Your task to perform on an android device: change your default location settings in chrome Image 0: 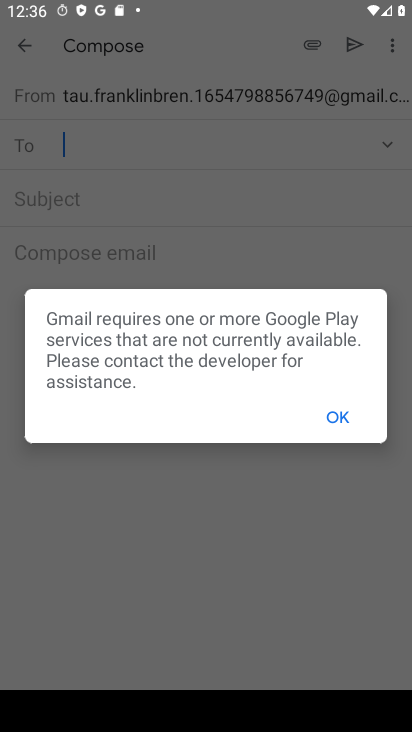
Step 0: click (341, 415)
Your task to perform on an android device: change your default location settings in chrome Image 1: 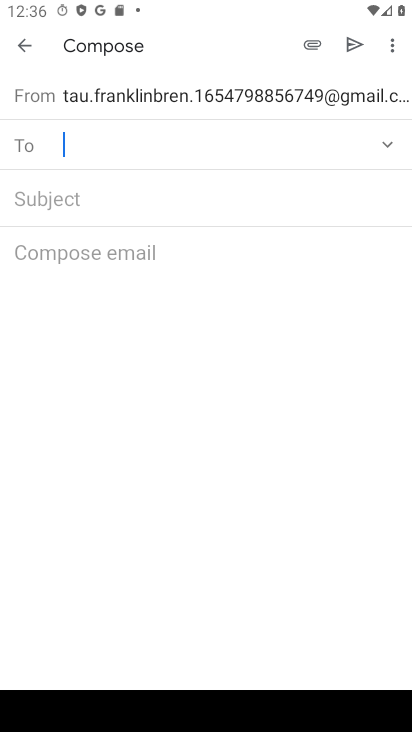
Step 1: drag from (241, 564) to (330, 316)
Your task to perform on an android device: change your default location settings in chrome Image 2: 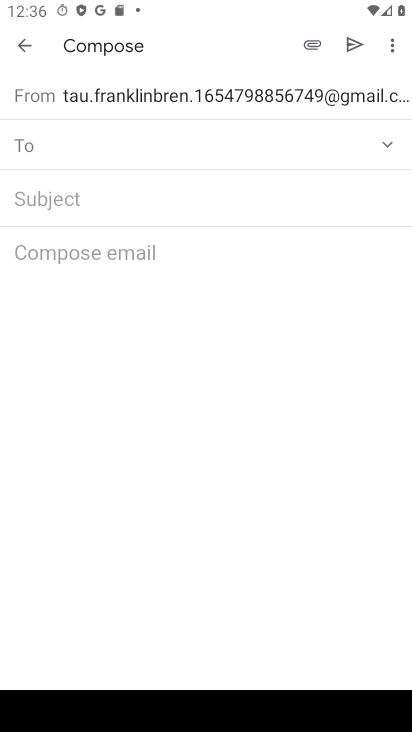
Step 2: drag from (251, 517) to (297, 184)
Your task to perform on an android device: change your default location settings in chrome Image 3: 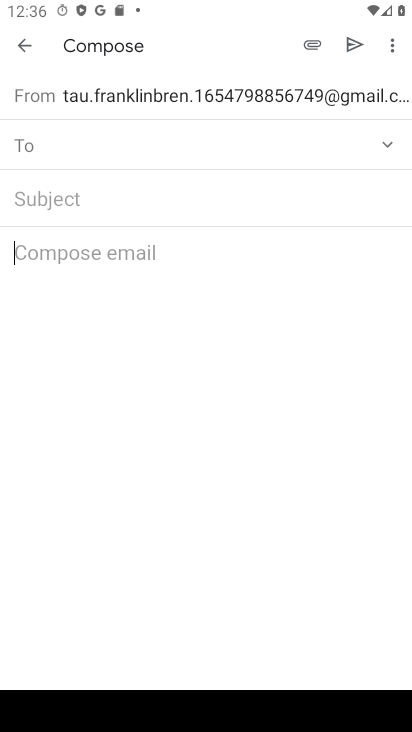
Step 3: press home button
Your task to perform on an android device: change your default location settings in chrome Image 4: 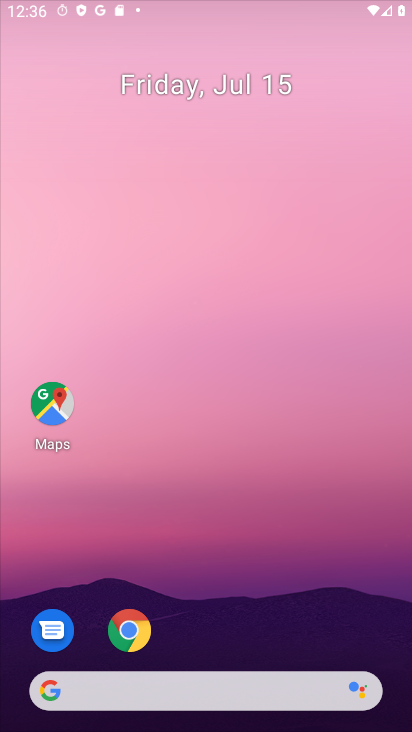
Step 4: drag from (179, 678) to (208, 204)
Your task to perform on an android device: change your default location settings in chrome Image 5: 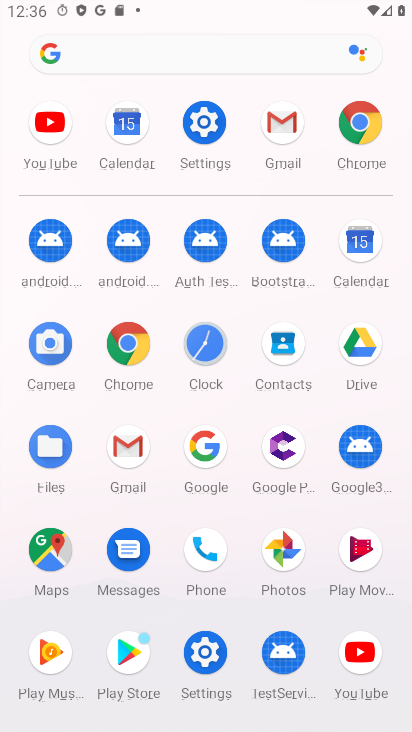
Step 5: click (110, 337)
Your task to perform on an android device: change your default location settings in chrome Image 6: 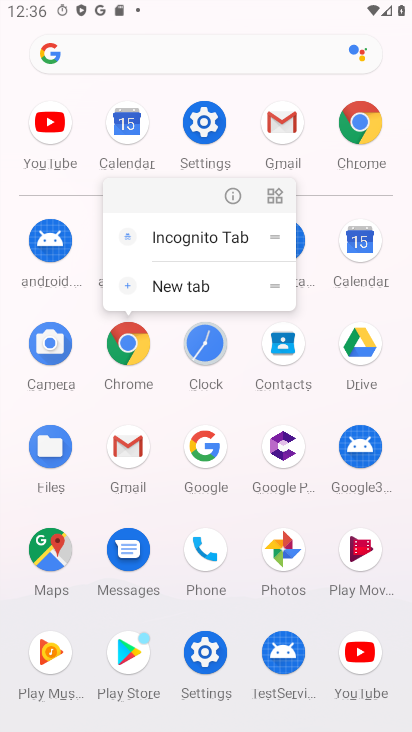
Step 6: click (236, 191)
Your task to perform on an android device: change your default location settings in chrome Image 7: 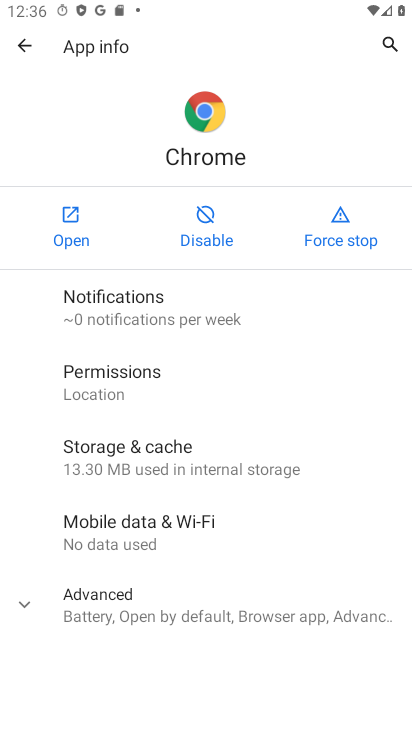
Step 7: click (70, 230)
Your task to perform on an android device: change your default location settings in chrome Image 8: 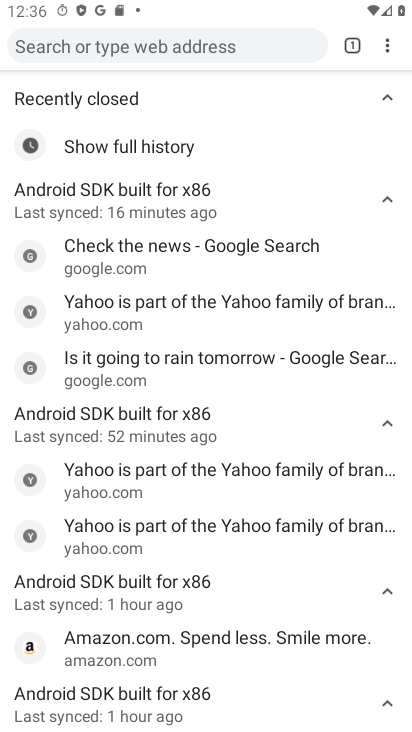
Step 8: click (387, 55)
Your task to perform on an android device: change your default location settings in chrome Image 9: 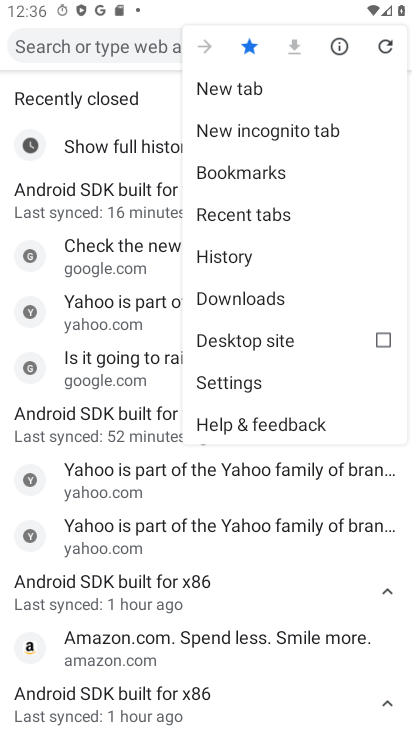
Step 9: click (251, 382)
Your task to perform on an android device: change your default location settings in chrome Image 10: 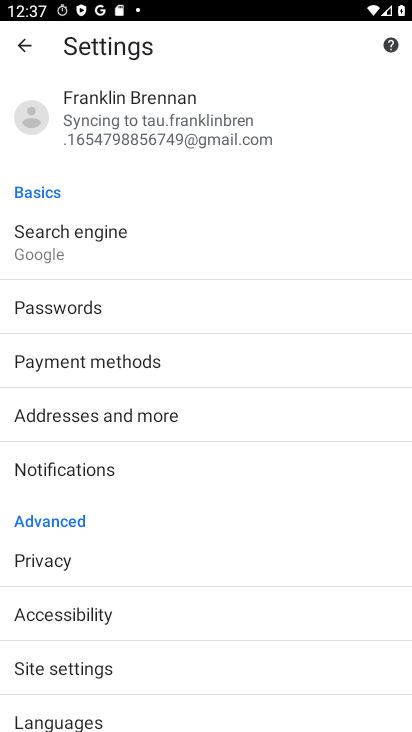
Step 10: drag from (236, 641) to (271, 451)
Your task to perform on an android device: change your default location settings in chrome Image 11: 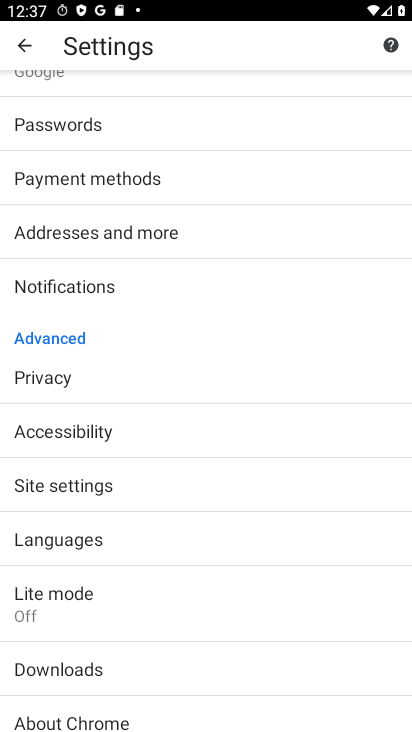
Step 11: drag from (178, 624) to (212, 444)
Your task to perform on an android device: change your default location settings in chrome Image 12: 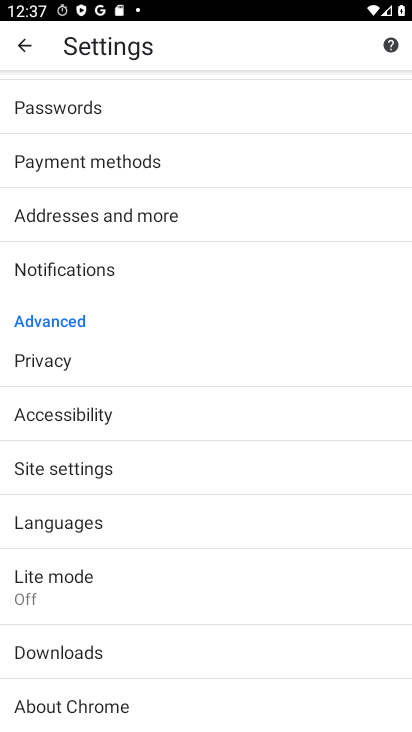
Step 12: drag from (163, 646) to (260, 217)
Your task to perform on an android device: change your default location settings in chrome Image 13: 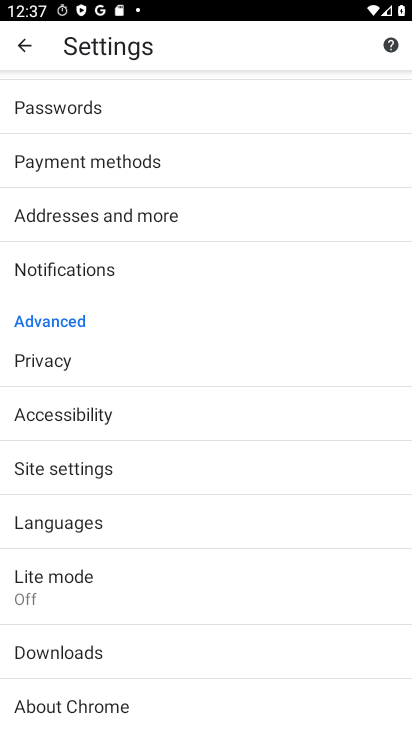
Step 13: drag from (177, 639) to (271, 314)
Your task to perform on an android device: change your default location settings in chrome Image 14: 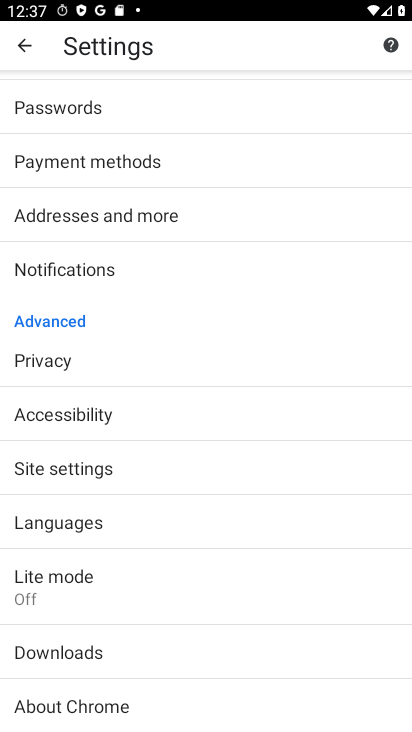
Step 14: click (98, 474)
Your task to perform on an android device: change your default location settings in chrome Image 15: 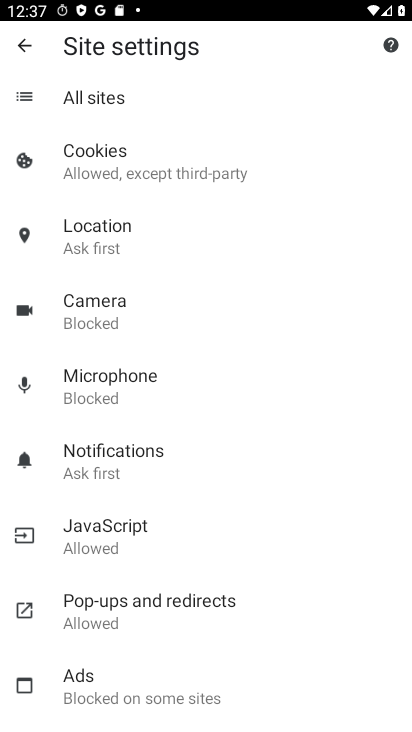
Step 15: drag from (180, 671) to (278, 324)
Your task to perform on an android device: change your default location settings in chrome Image 16: 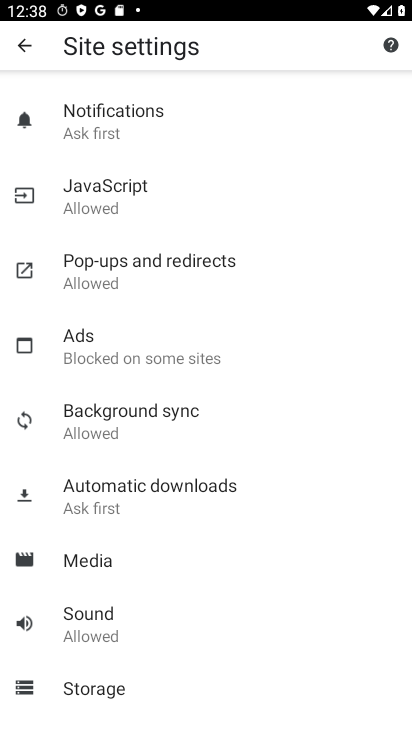
Step 16: drag from (225, 241) to (223, 687)
Your task to perform on an android device: change your default location settings in chrome Image 17: 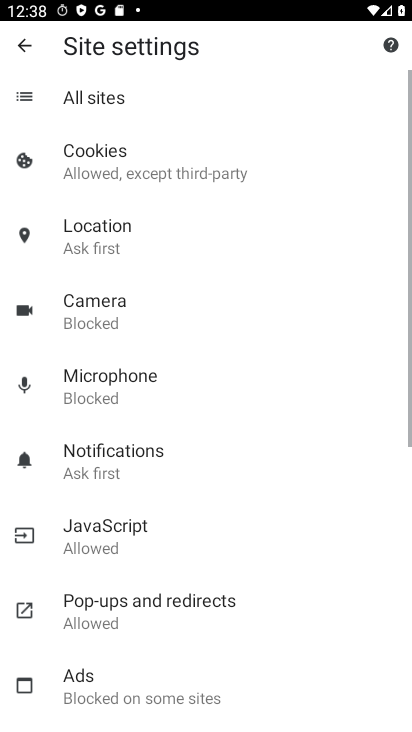
Step 17: click (101, 237)
Your task to perform on an android device: change your default location settings in chrome Image 18: 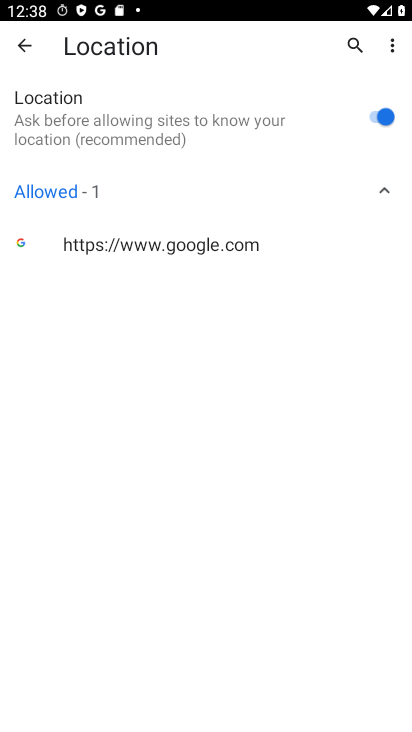
Step 18: click (382, 112)
Your task to perform on an android device: change your default location settings in chrome Image 19: 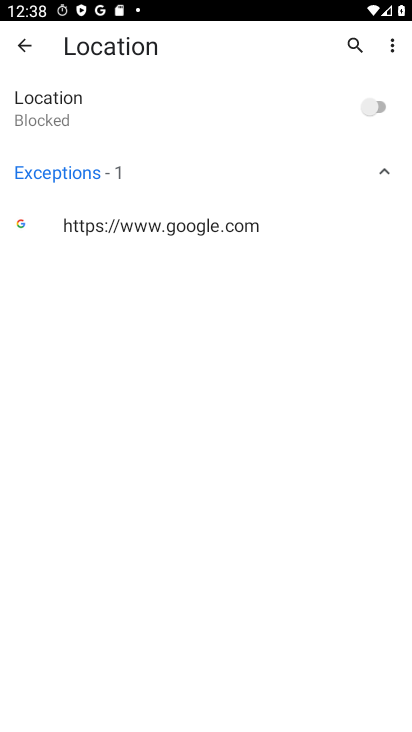
Step 19: task complete